Your task to perform on an android device: refresh tabs in the chrome app Image 0: 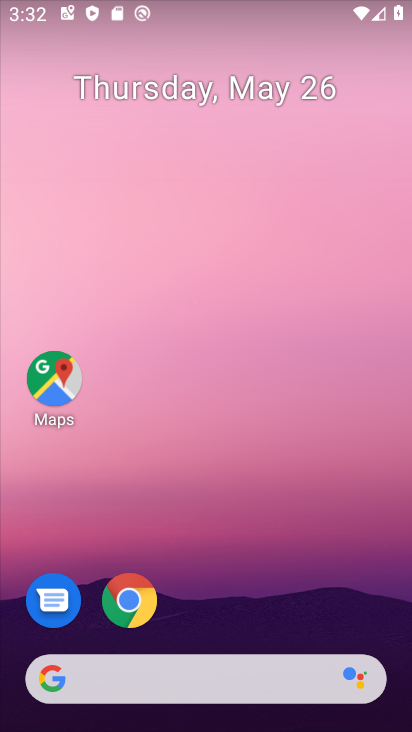
Step 0: drag from (302, 584) to (226, 102)
Your task to perform on an android device: refresh tabs in the chrome app Image 1: 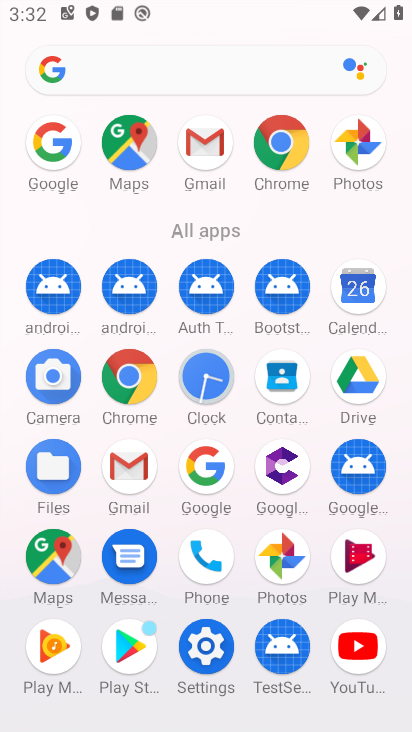
Step 1: drag from (11, 617) to (14, 283)
Your task to perform on an android device: refresh tabs in the chrome app Image 2: 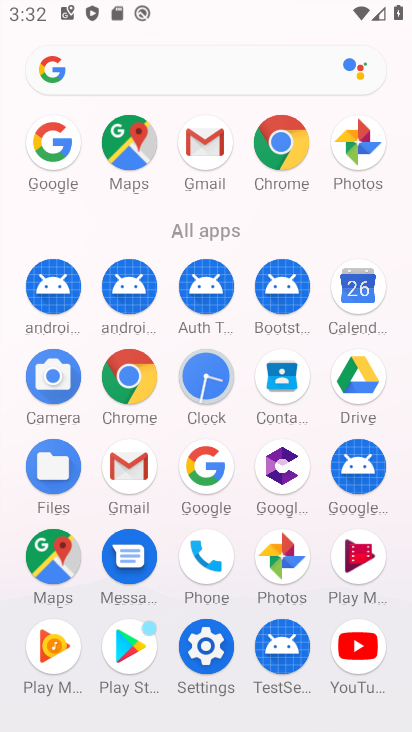
Step 2: click (128, 368)
Your task to perform on an android device: refresh tabs in the chrome app Image 3: 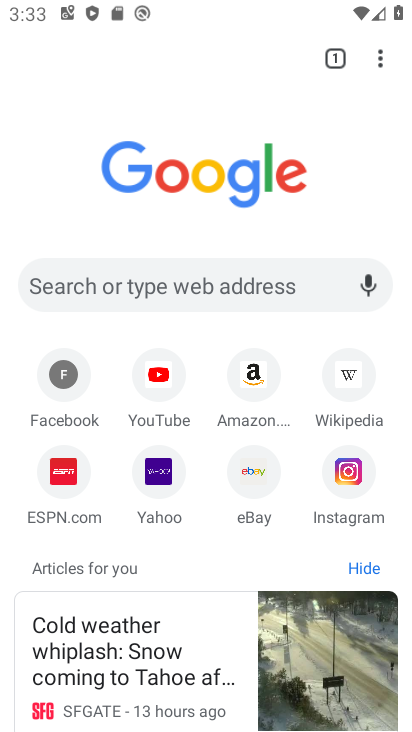
Step 3: click (376, 61)
Your task to perform on an android device: refresh tabs in the chrome app Image 4: 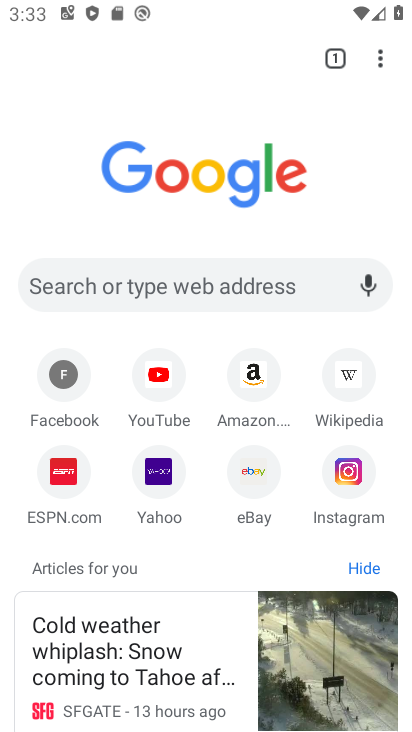
Step 4: task complete